Your task to perform on an android device: clear history in the chrome app Image 0: 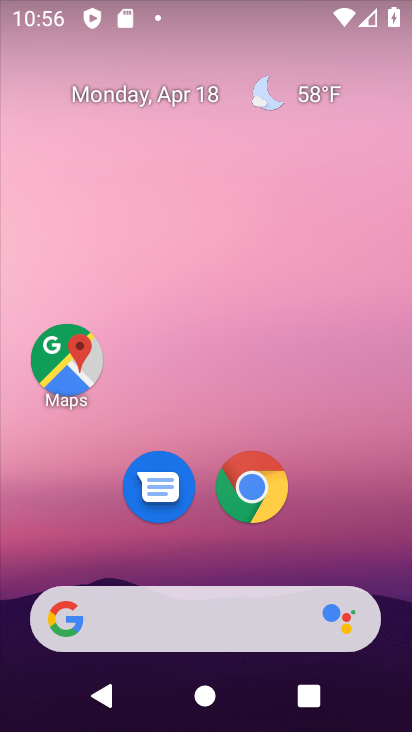
Step 0: click (283, 473)
Your task to perform on an android device: clear history in the chrome app Image 1: 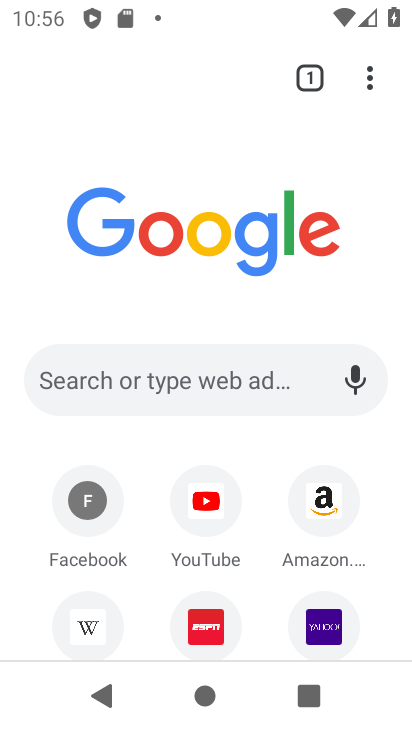
Step 1: click (363, 77)
Your task to perform on an android device: clear history in the chrome app Image 2: 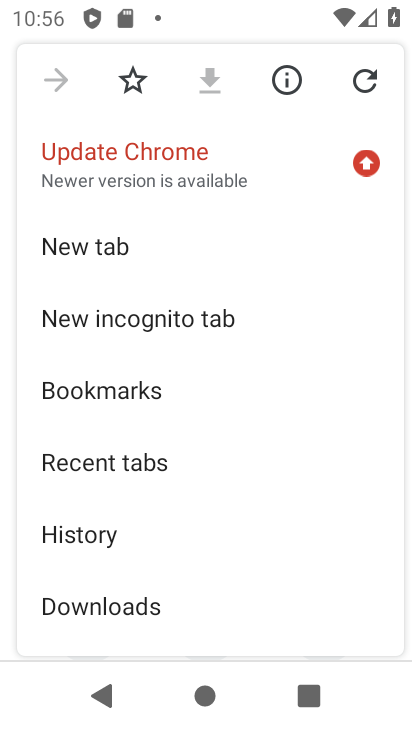
Step 2: click (94, 542)
Your task to perform on an android device: clear history in the chrome app Image 3: 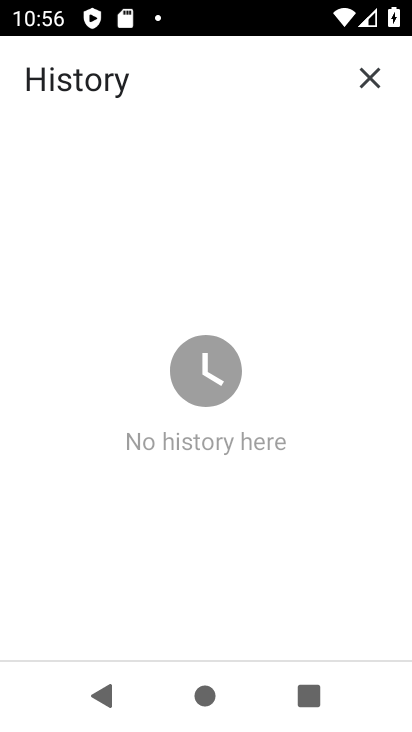
Step 3: task complete